Your task to perform on an android device: Open privacy settings Image 0: 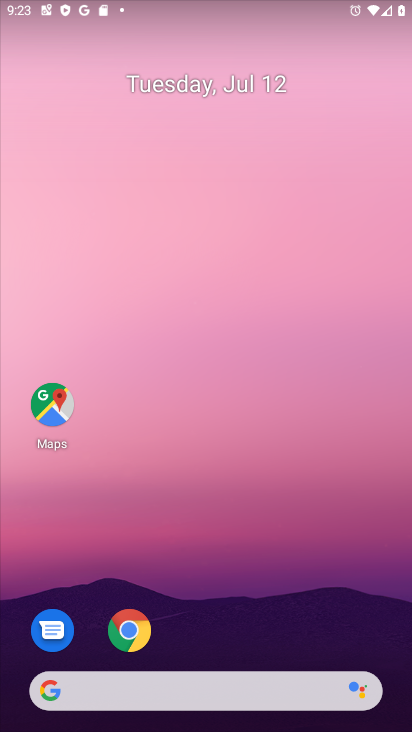
Step 0: click (128, 630)
Your task to perform on an android device: Open privacy settings Image 1: 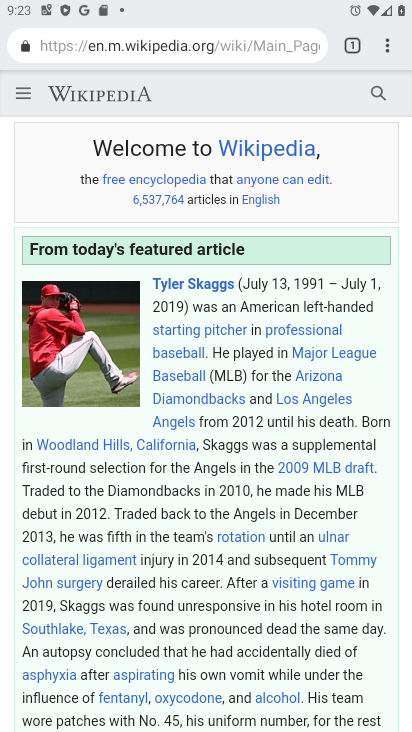
Step 1: click (381, 44)
Your task to perform on an android device: Open privacy settings Image 2: 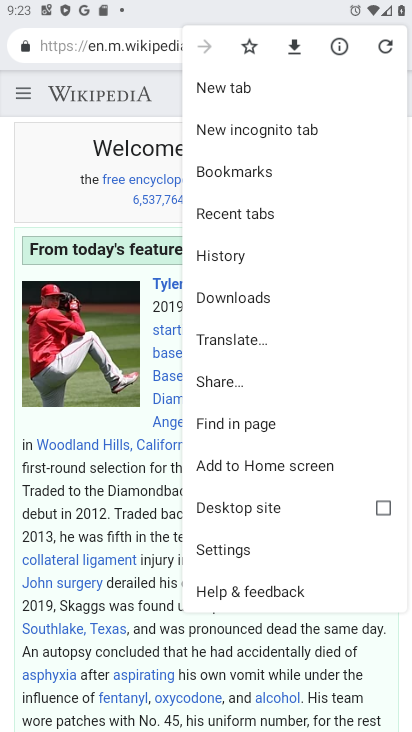
Step 2: click (226, 552)
Your task to perform on an android device: Open privacy settings Image 3: 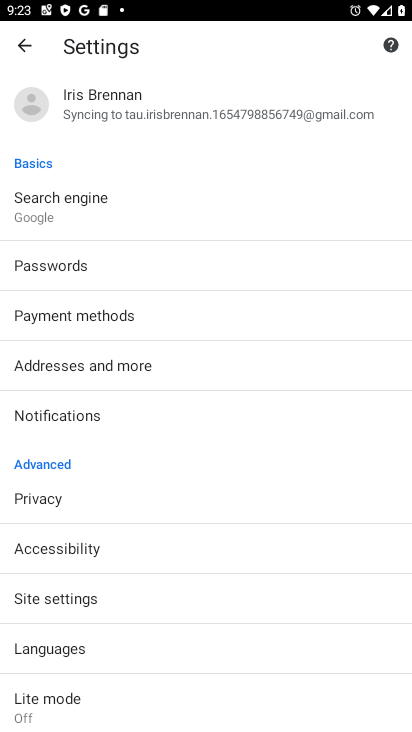
Step 3: click (75, 498)
Your task to perform on an android device: Open privacy settings Image 4: 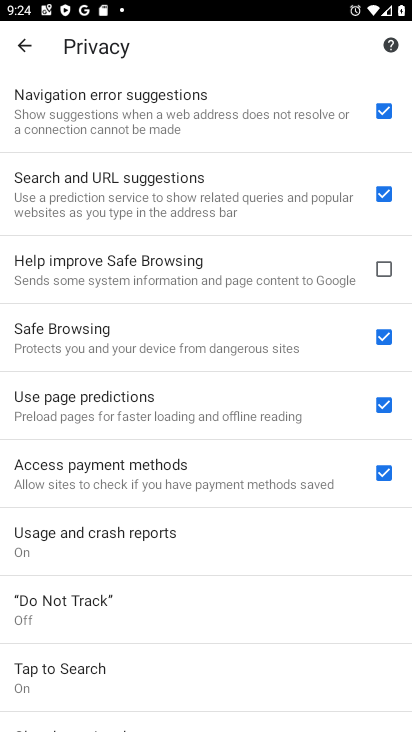
Step 4: task complete